Your task to perform on an android device: turn pop-ups on in chrome Image 0: 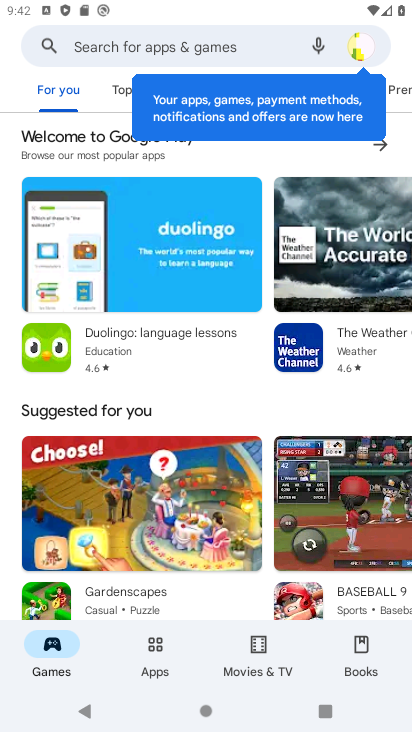
Step 0: press home button
Your task to perform on an android device: turn pop-ups on in chrome Image 1: 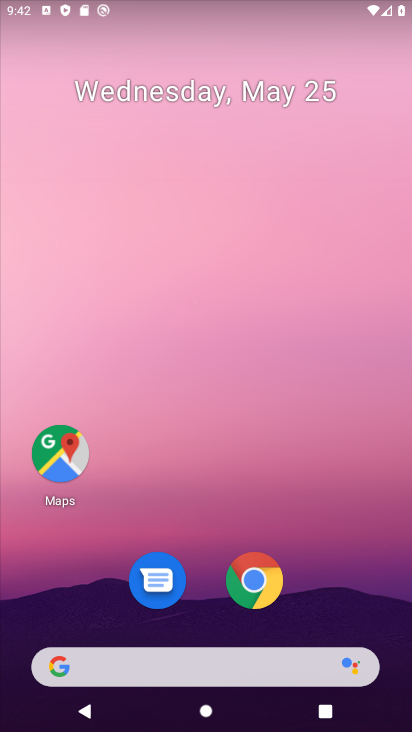
Step 1: click (229, 579)
Your task to perform on an android device: turn pop-ups on in chrome Image 2: 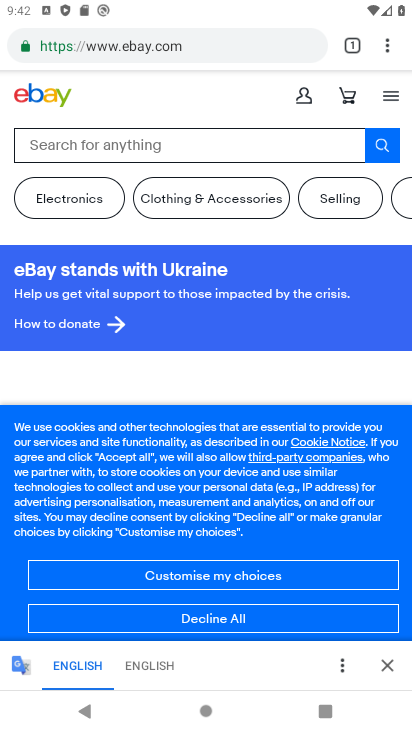
Step 2: click (383, 43)
Your task to perform on an android device: turn pop-ups on in chrome Image 3: 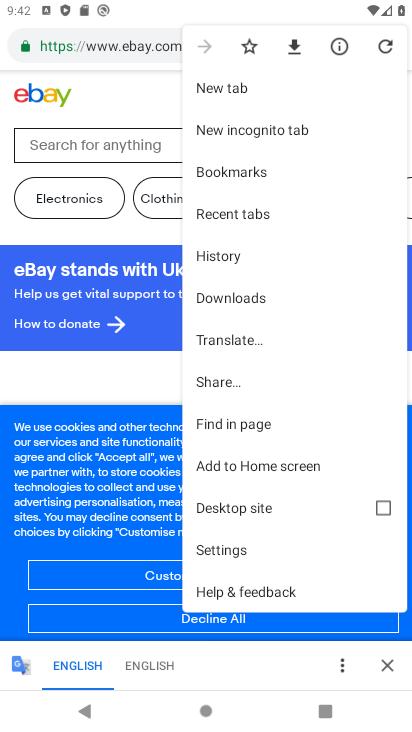
Step 3: click (220, 551)
Your task to perform on an android device: turn pop-ups on in chrome Image 4: 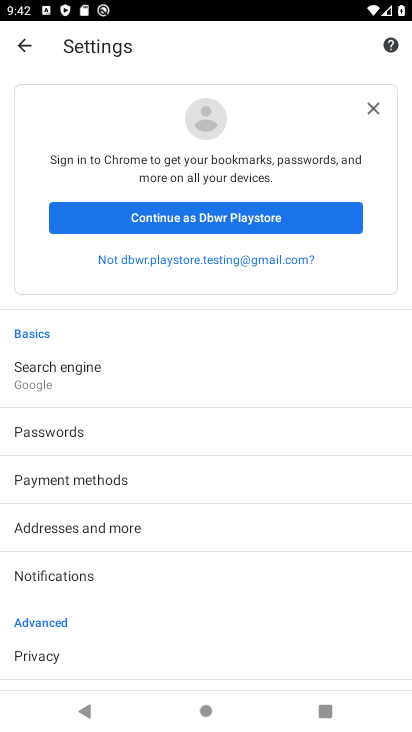
Step 4: drag from (9, 479) to (178, 152)
Your task to perform on an android device: turn pop-ups on in chrome Image 5: 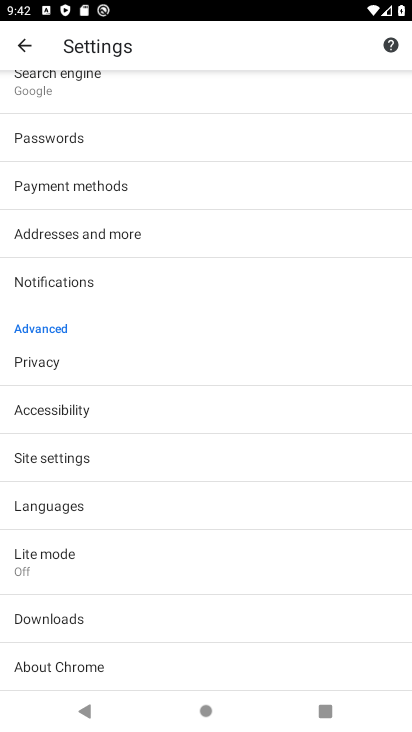
Step 5: click (56, 455)
Your task to perform on an android device: turn pop-ups on in chrome Image 6: 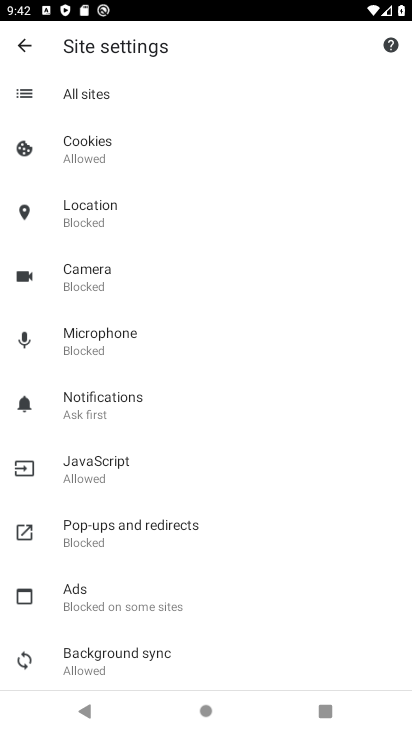
Step 6: click (180, 512)
Your task to perform on an android device: turn pop-ups on in chrome Image 7: 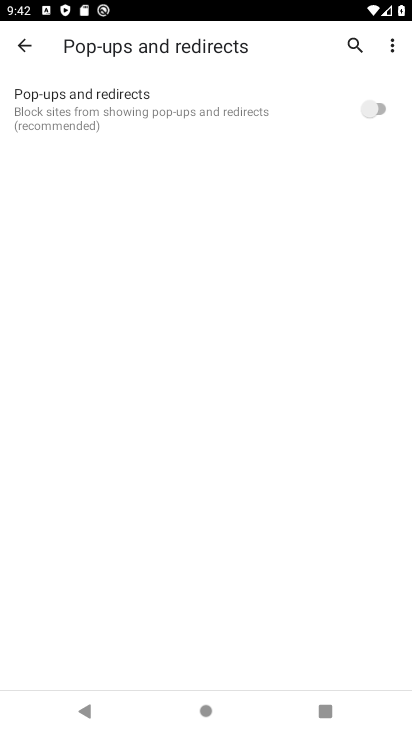
Step 7: click (365, 114)
Your task to perform on an android device: turn pop-ups on in chrome Image 8: 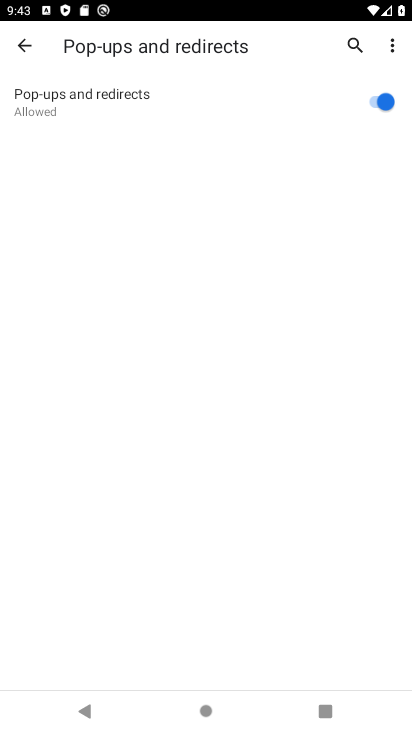
Step 8: task complete